Your task to perform on an android device: open a bookmark in the chrome app Image 0: 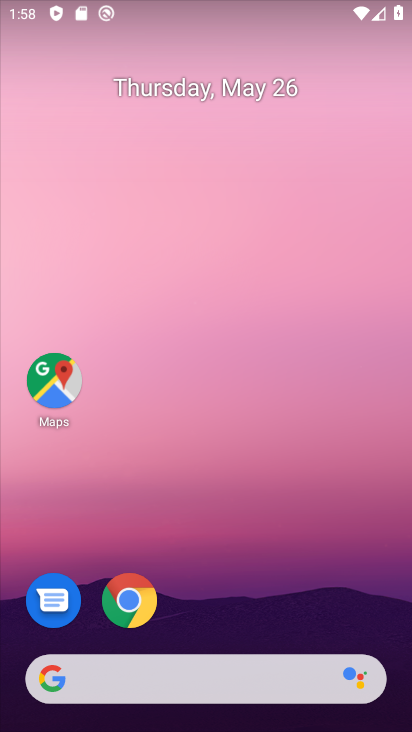
Step 0: drag from (224, 546) to (348, 258)
Your task to perform on an android device: open a bookmark in the chrome app Image 1: 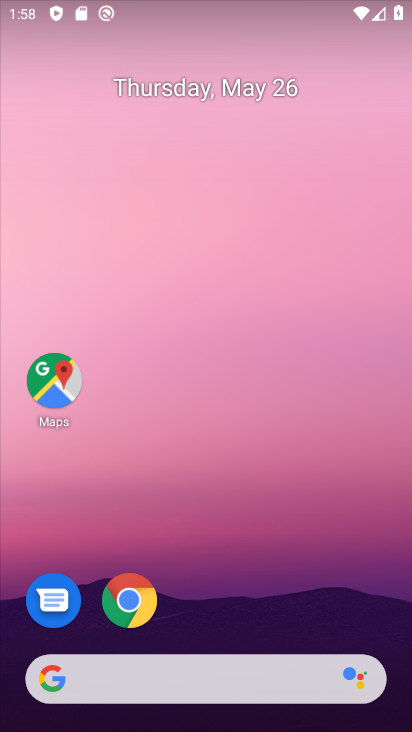
Step 1: drag from (16, 676) to (2, 65)
Your task to perform on an android device: open a bookmark in the chrome app Image 2: 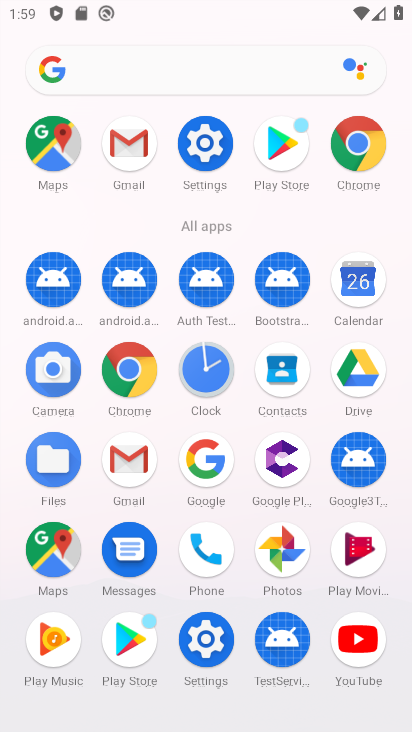
Step 2: click (132, 366)
Your task to perform on an android device: open a bookmark in the chrome app Image 3: 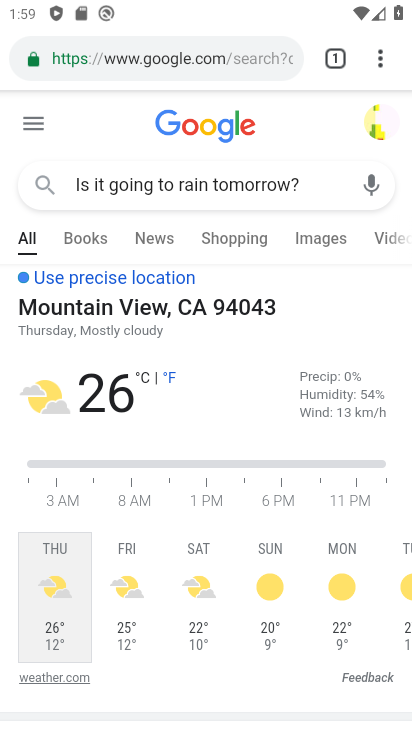
Step 3: task complete